Your task to perform on an android device: change the clock display to analog Image 0: 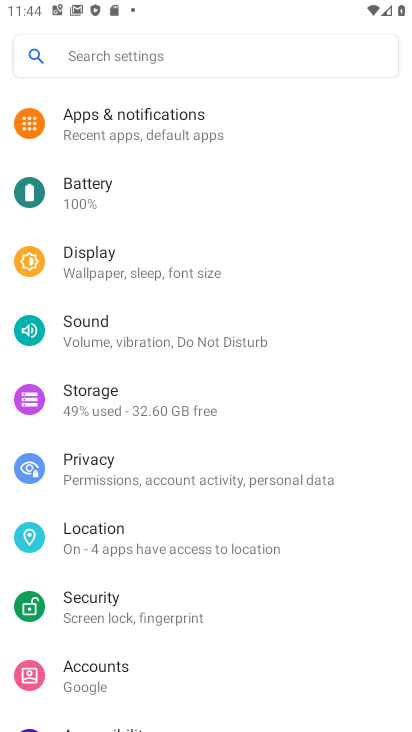
Step 0: click (119, 184)
Your task to perform on an android device: change the clock display to analog Image 1: 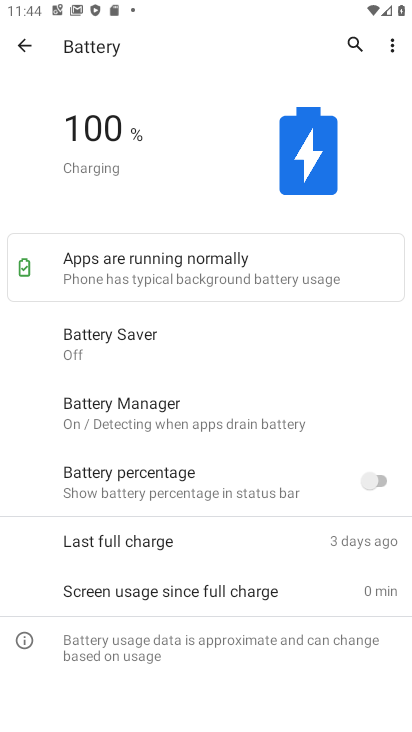
Step 1: press back button
Your task to perform on an android device: change the clock display to analog Image 2: 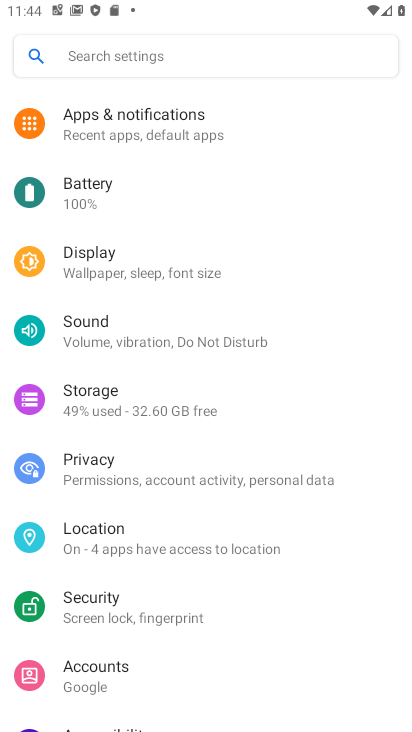
Step 2: press home button
Your task to perform on an android device: change the clock display to analog Image 3: 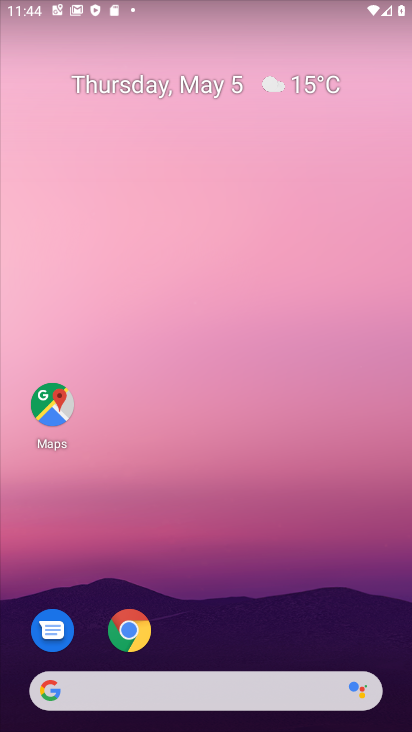
Step 3: drag from (321, 601) to (310, 61)
Your task to perform on an android device: change the clock display to analog Image 4: 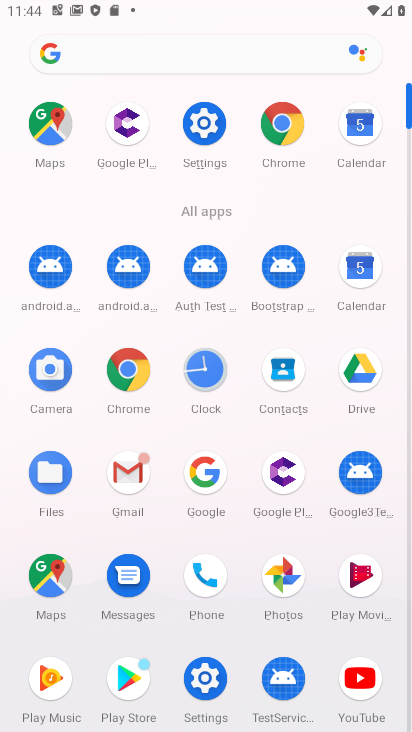
Step 4: click (217, 364)
Your task to perform on an android device: change the clock display to analog Image 5: 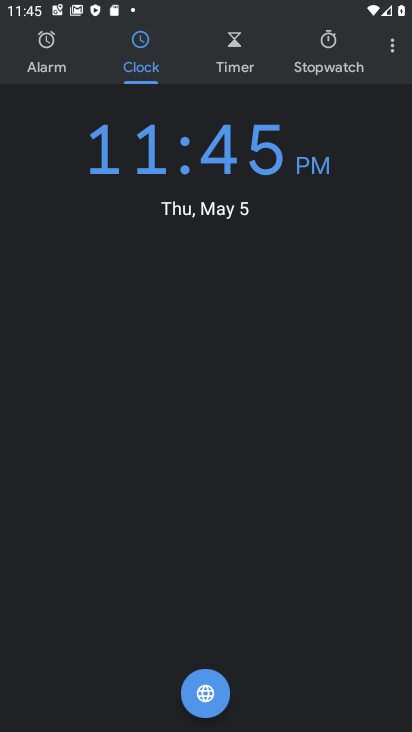
Step 5: click (384, 44)
Your task to perform on an android device: change the clock display to analog Image 6: 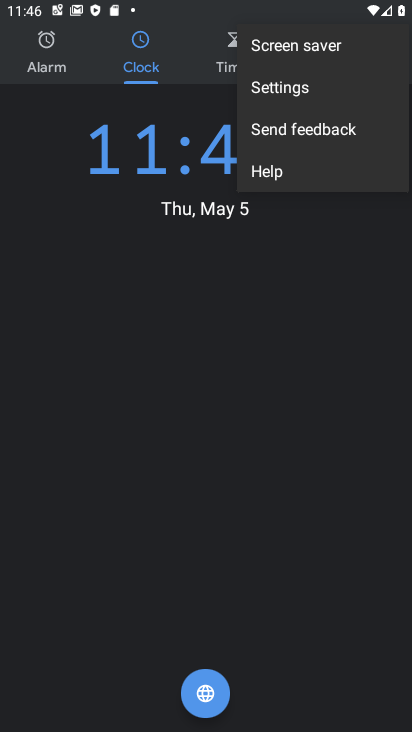
Step 6: click (319, 93)
Your task to perform on an android device: change the clock display to analog Image 7: 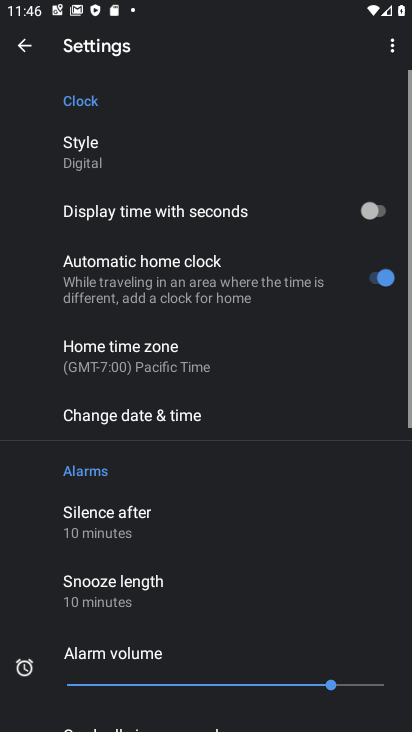
Step 7: click (144, 152)
Your task to perform on an android device: change the clock display to analog Image 8: 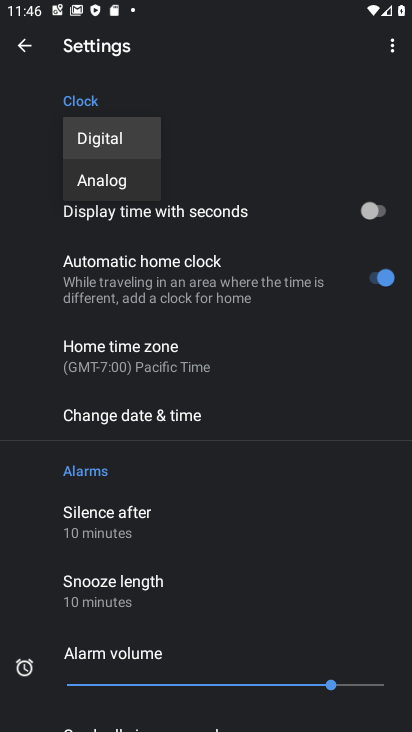
Step 8: click (124, 178)
Your task to perform on an android device: change the clock display to analog Image 9: 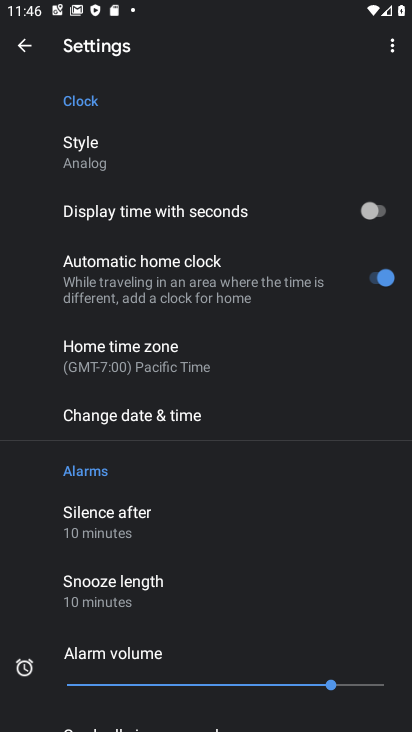
Step 9: task complete